Your task to perform on an android device: open app "DoorDash - Food Delivery" (install if not already installed) Image 0: 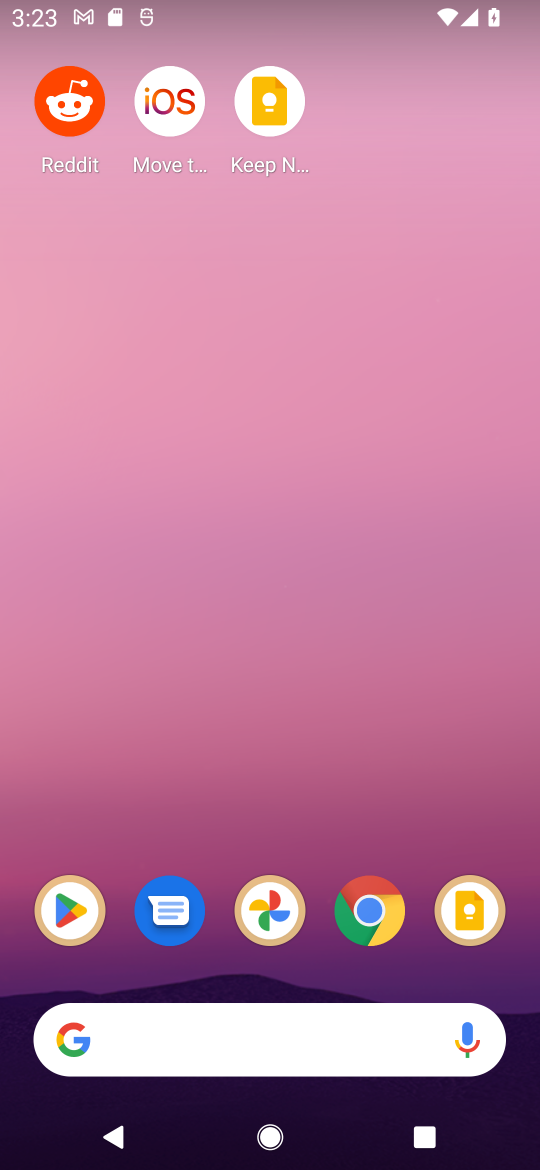
Step 0: drag from (202, 433) to (268, 133)
Your task to perform on an android device: open app "DoorDash - Food Delivery" (install if not already installed) Image 1: 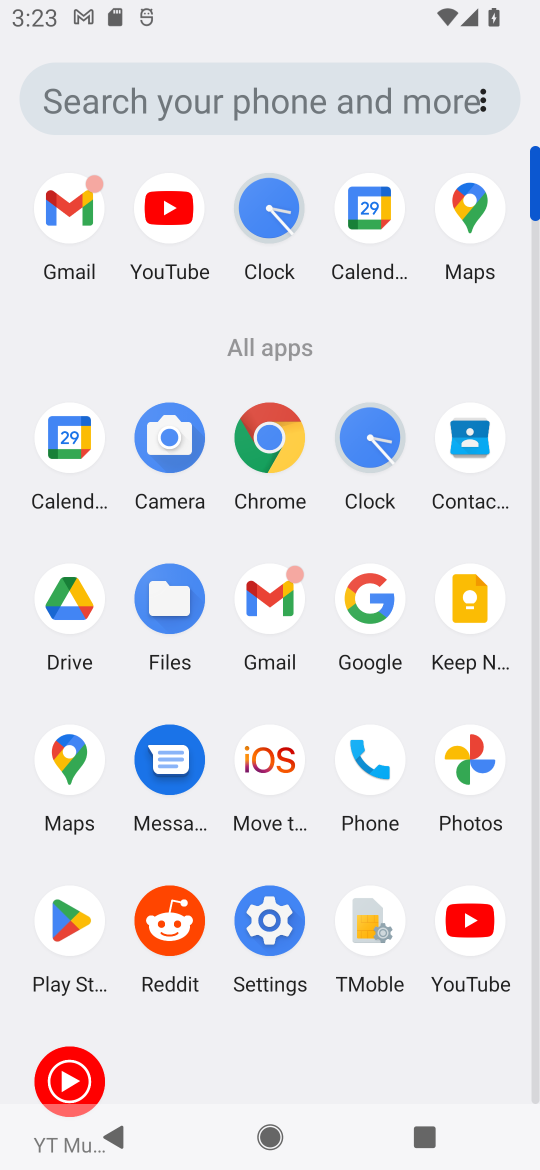
Step 1: click (46, 938)
Your task to perform on an android device: open app "DoorDash - Food Delivery" (install if not already installed) Image 2: 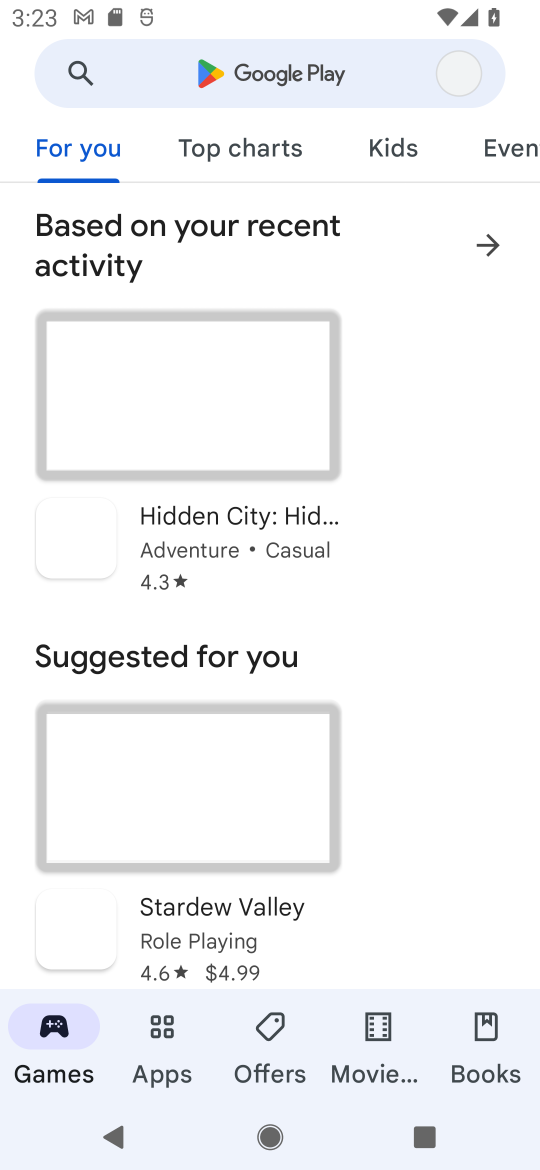
Step 2: drag from (88, 1156) to (24, 1130)
Your task to perform on an android device: open app "DoorDash - Food Delivery" (install if not already installed) Image 3: 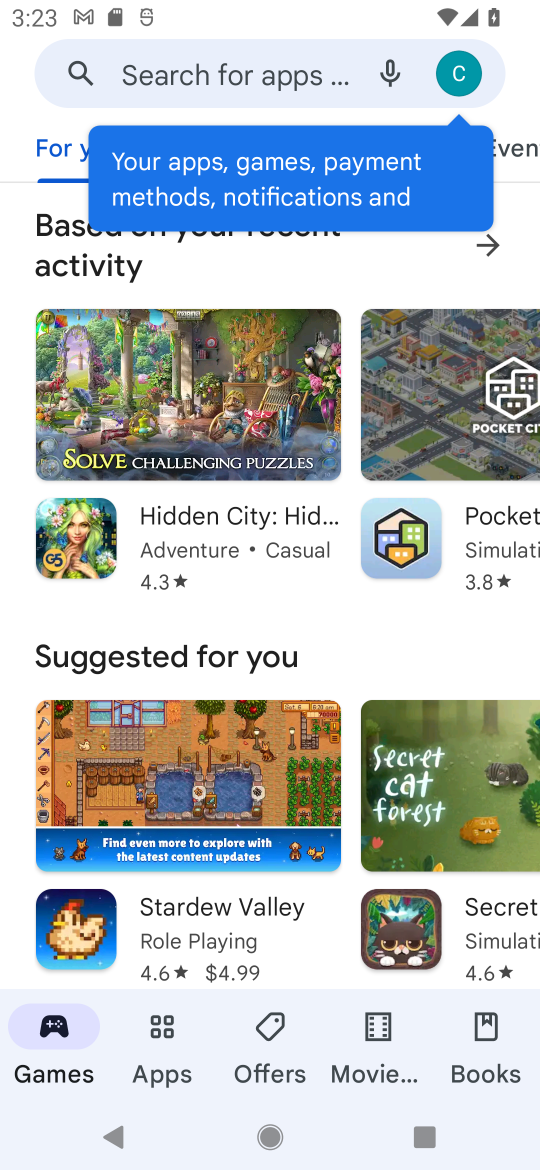
Step 3: click (189, 64)
Your task to perform on an android device: open app "DoorDash - Food Delivery" (install if not already installed) Image 4: 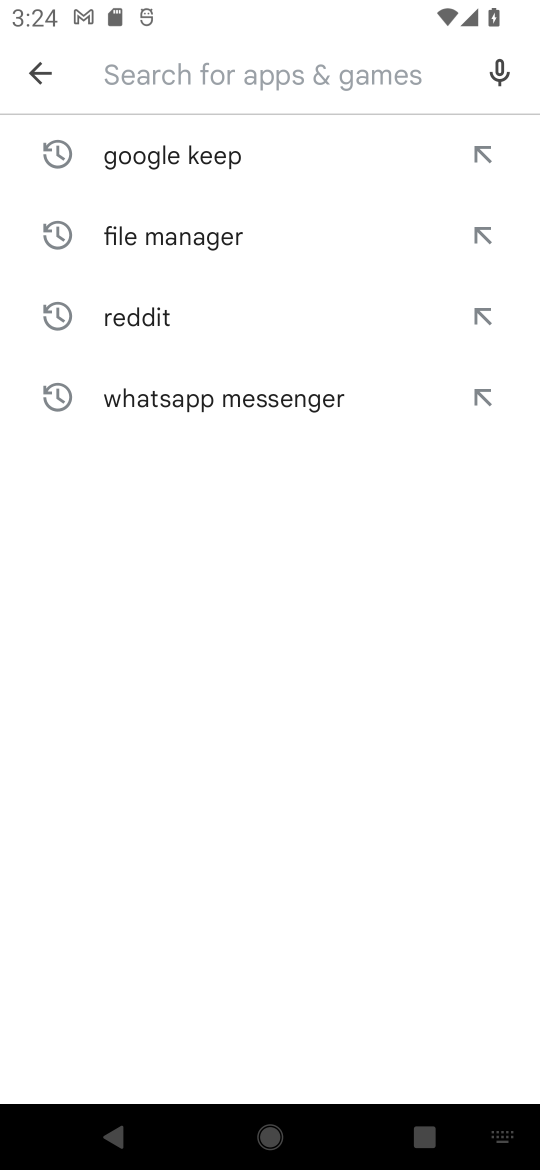
Step 4: type "DoorDash - Food Delivery""
Your task to perform on an android device: open app "DoorDash - Food Delivery" (install if not already installed) Image 5: 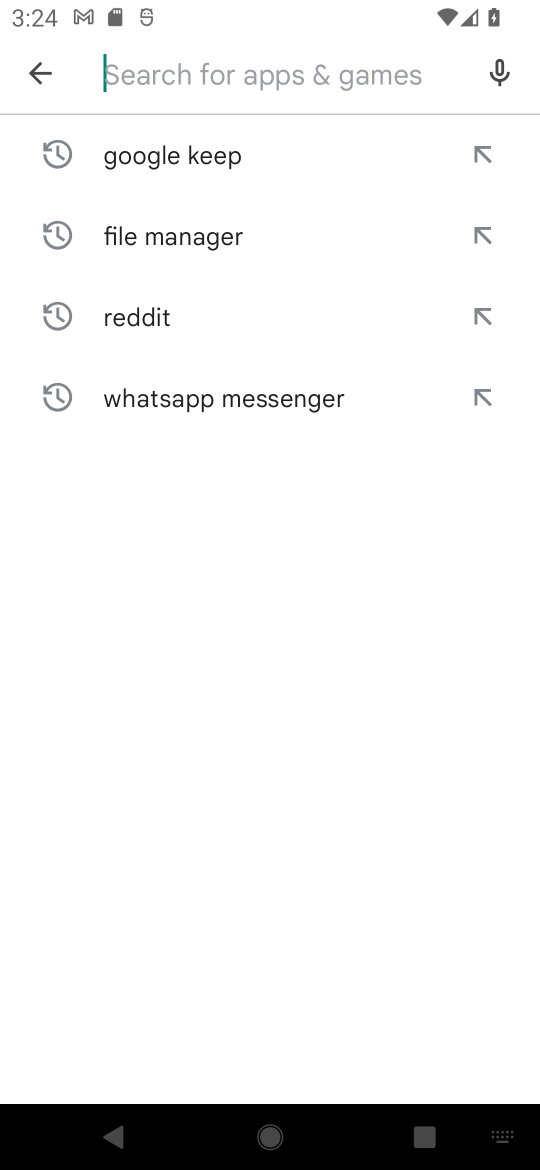
Step 5: type "DoorDash - Food Delivery""
Your task to perform on an android device: open app "DoorDash - Food Delivery" (install if not already installed) Image 6: 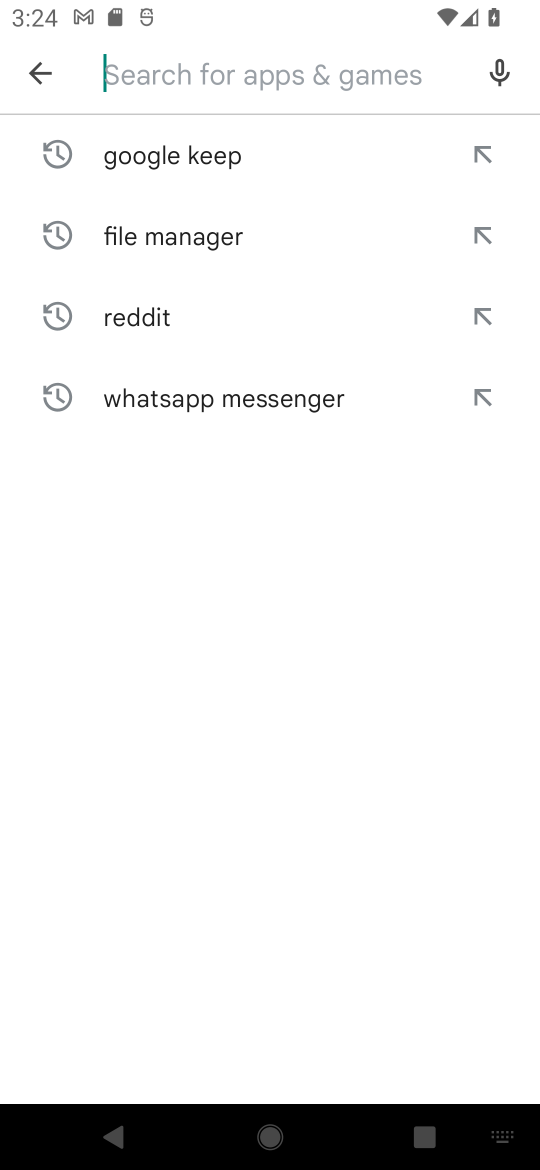
Step 6: click (135, 87)
Your task to perform on an android device: open app "DoorDash - Food Delivery" (install if not already installed) Image 7: 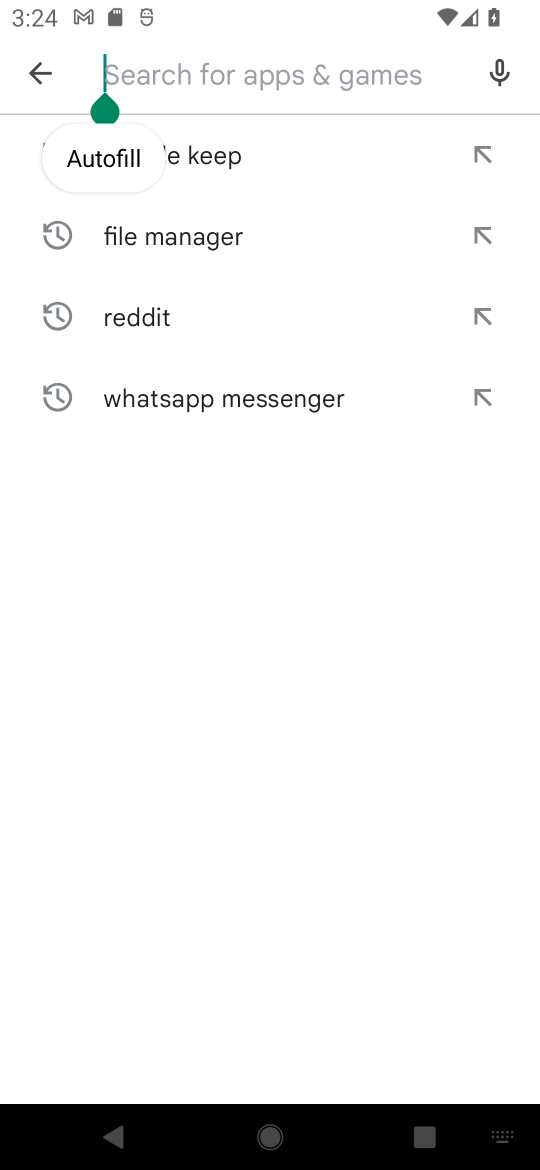
Step 7: type "DoorDash - Food Delivery""
Your task to perform on an android device: open app "DoorDash - Food Delivery" (install if not already installed) Image 8: 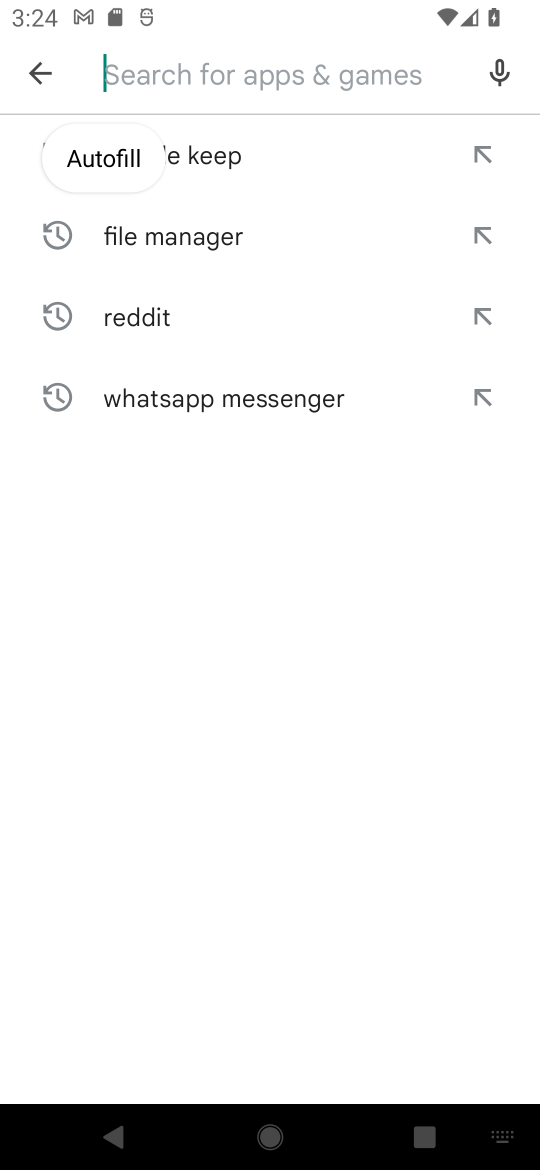
Step 8: type "DoorDash - Food Delivery"
Your task to perform on an android device: open app "DoorDash - Food Delivery" (install if not already installed) Image 9: 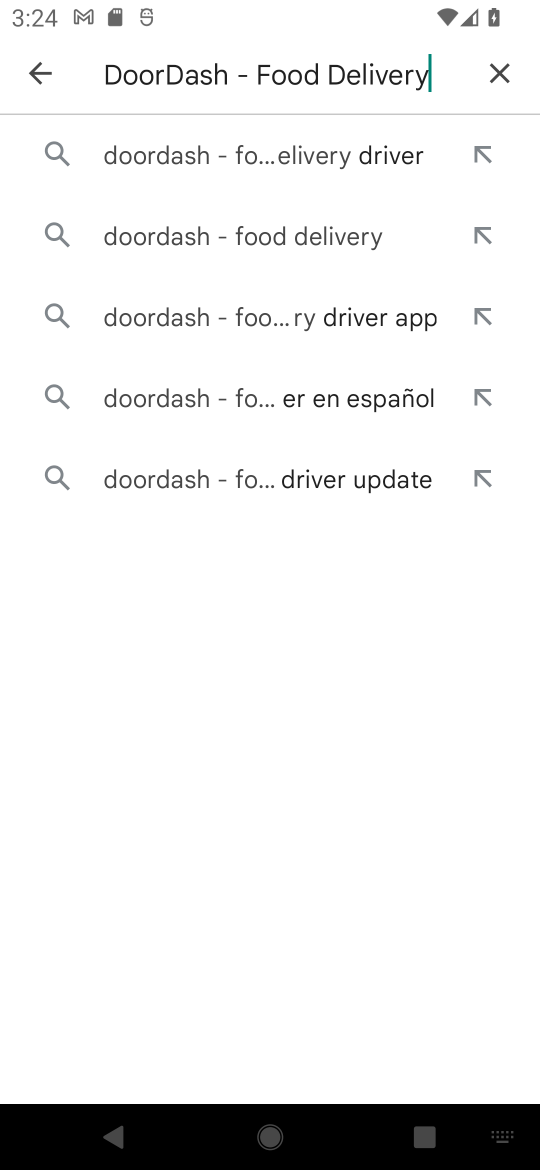
Step 9: click (300, 238)
Your task to perform on an android device: open app "DoorDash - Food Delivery" (install if not already installed) Image 10: 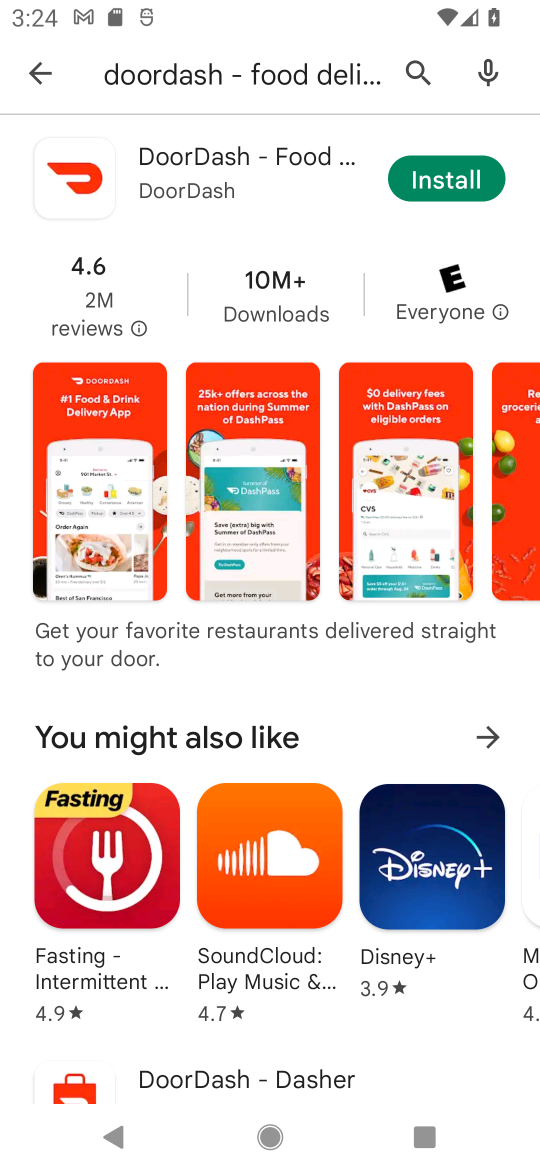
Step 10: click (423, 175)
Your task to perform on an android device: open app "DoorDash - Food Delivery" (install if not already installed) Image 11: 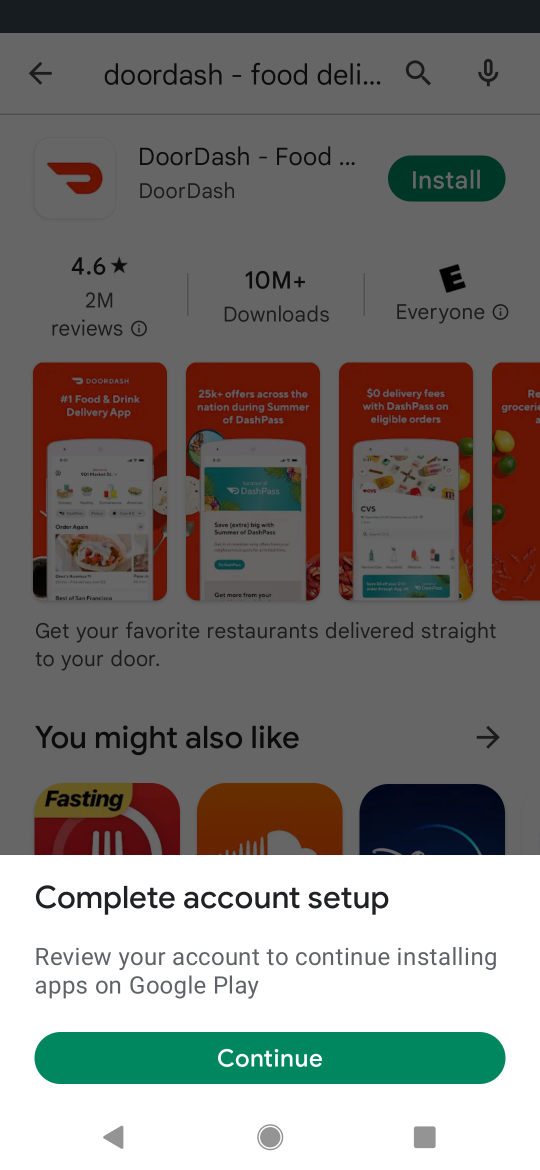
Step 11: task complete